Your task to perform on an android device: turn on javascript in the chrome app Image 0: 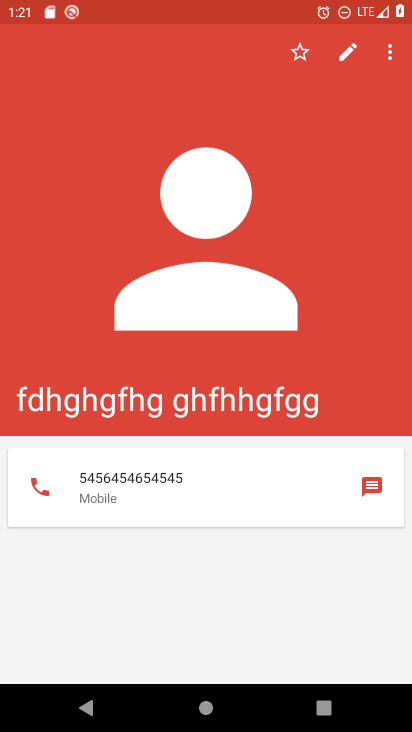
Step 0: press home button
Your task to perform on an android device: turn on javascript in the chrome app Image 1: 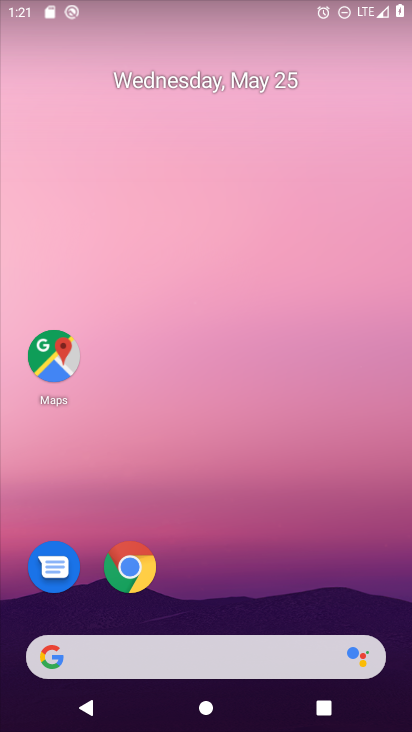
Step 1: drag from (403, 699) to (354, 271)
Your task to perform on an android device: turn on javascript in the chrome app Image 2: 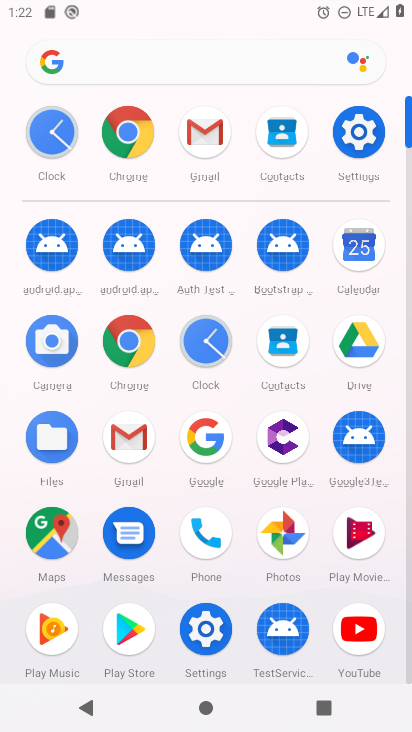
Step 2: click (134, 126)
Your task to perform on an android device: turn on javascript in the chrome app Image 3: 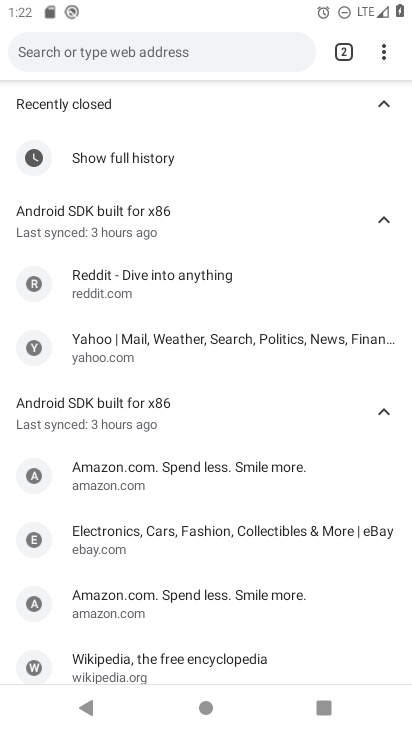
Step 3: click (383, 47)
Your task to perform on an android device: turn on javascript in the chrome app Image 4: 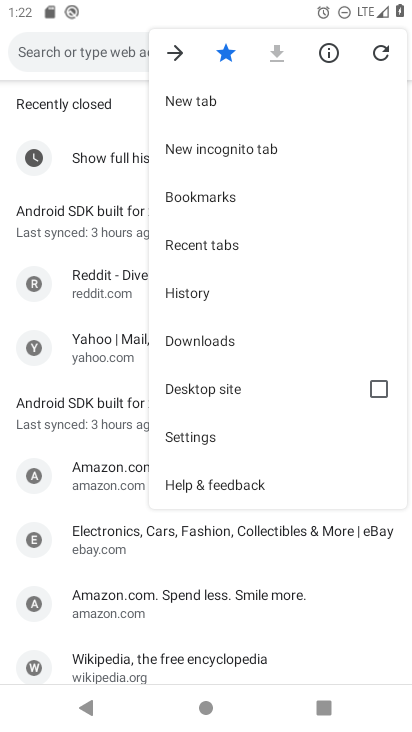
Step 4: click (183, 430)
Your task to perform on an android device: turn on javascript in the chrome app Image 5: 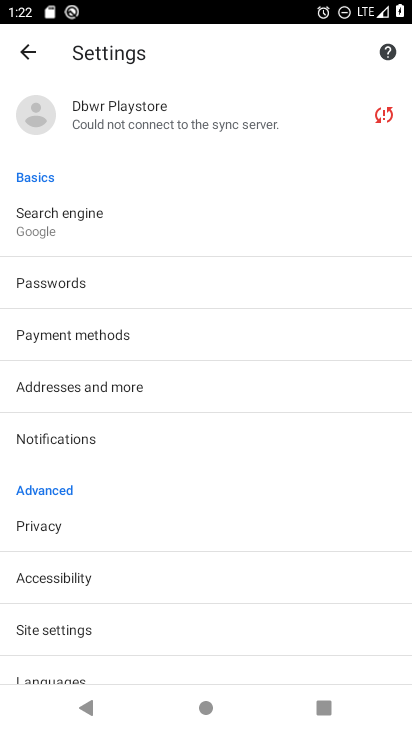
Step 5: drag from (176, 664) to (234, 342)
Your task to perform on an android device: turn on javascript in the chrome app Image 6: 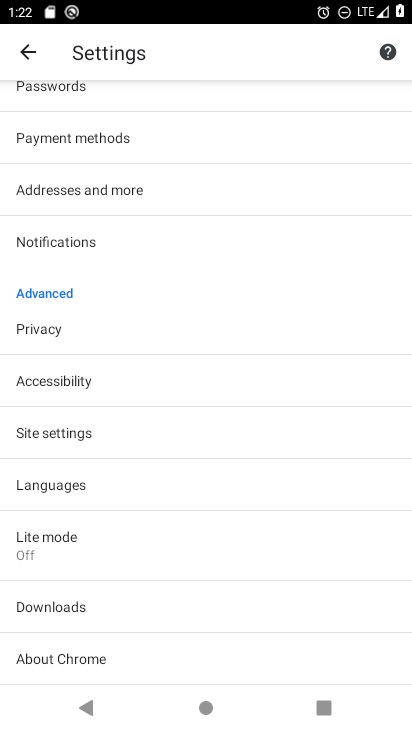
Step 6: click (45, 554)
Your task to perform on an android device: turn on javascript in the chrome app Image 7: 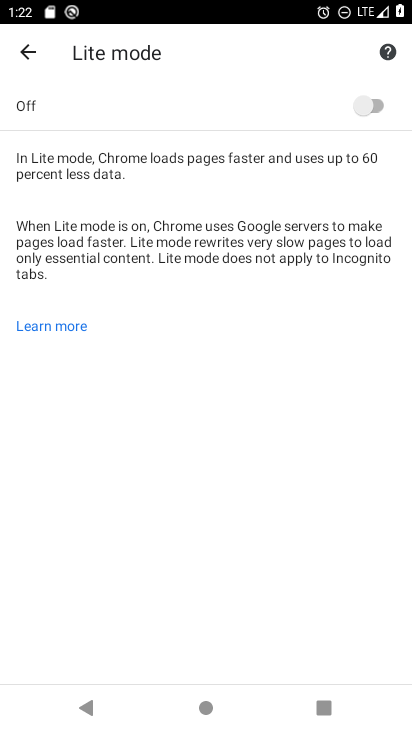
Step 7: click (378, 105)
Your task to perform on an android device: turn on javascript in the chrome app Image 8: 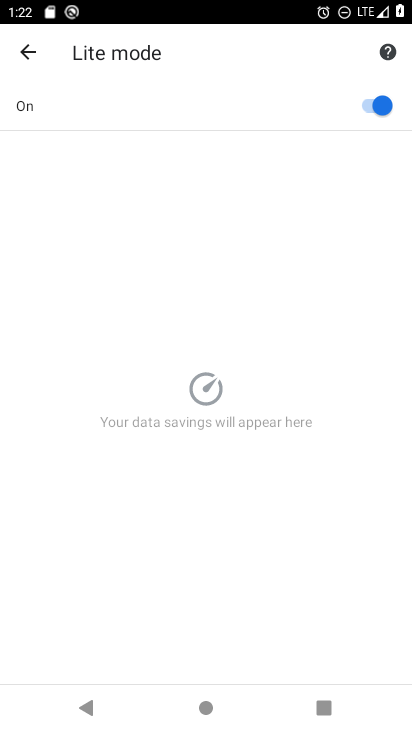
Step 8: click (371, 103)
Your task to perform on an android device: turn on javascript in the chrome app Image 9: 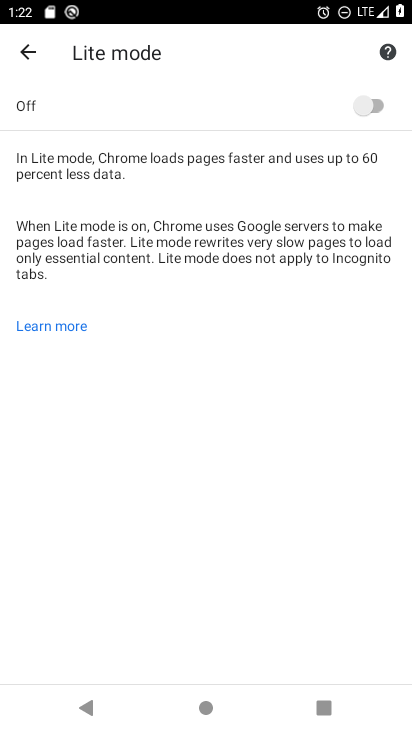
Step 9: click (25, 57)
Your task to perform on an android device: turn on javascript in the chrome app Image 10: 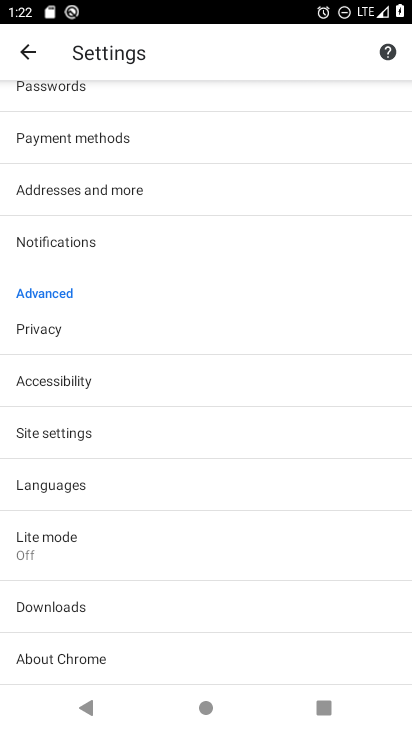
Step 10: click (51, 430)
Your task to perform on an android device: turn on javascript in the chrome app Image 11: 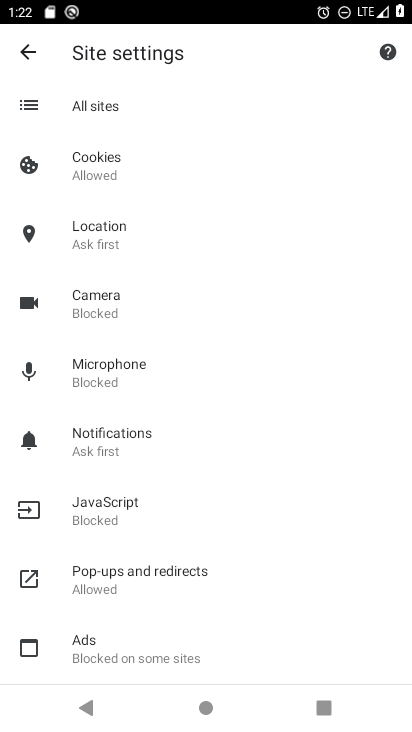
Step 11: click (94, 503)
Your task to perform on an android device: turn on javascript in the chrome app Image 12: 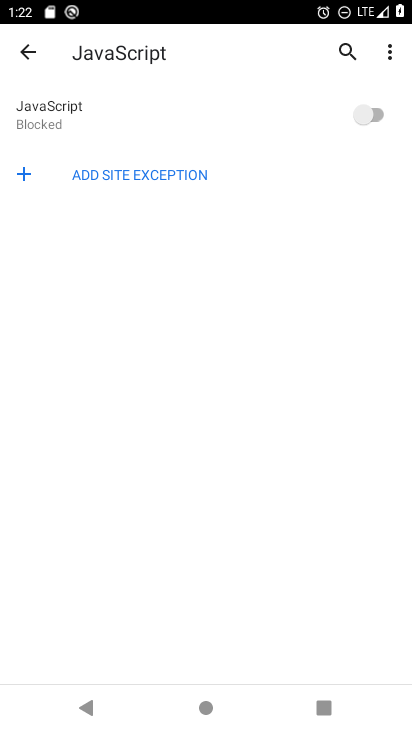
Step 12: click (375, 116)
Your task to perform on an android device: turn on javascript in the chrome app Image 13: 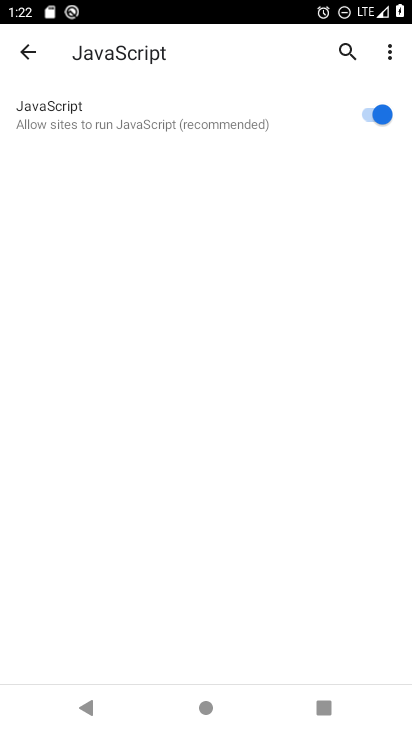
Step 13: task complete